Your task to perform on an android device: Clear the shopping cart on walmart. Add "logitech g910" to the cart on walmart Image 0: 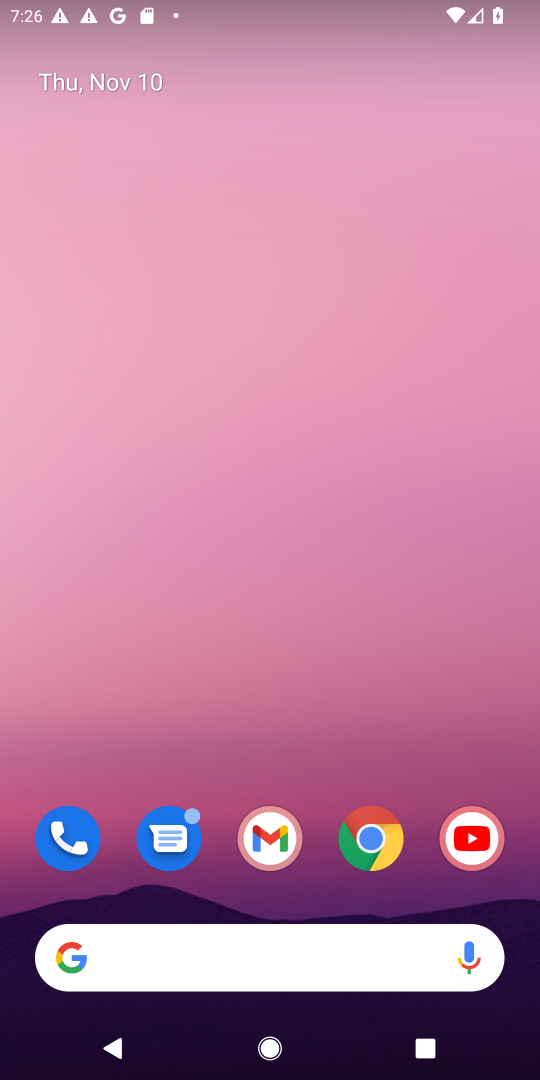
Step 0: drag from (310, 912) to (401, 121)
Your task to perform on an android device: Clear the shopping cart on walmart. Add "logitech g910" to the cart on walmart Image 1: 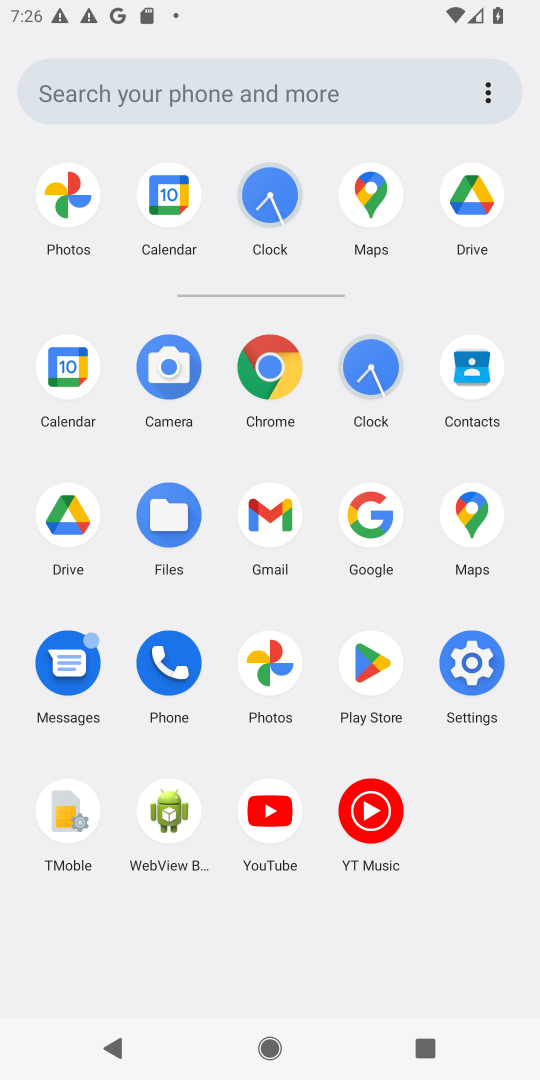
Step 1: click (268, 372)
Your task to perform on an android device: Clear the shopping cart on walmart. Add "logitech g910" to the cart on walmart Image 2: 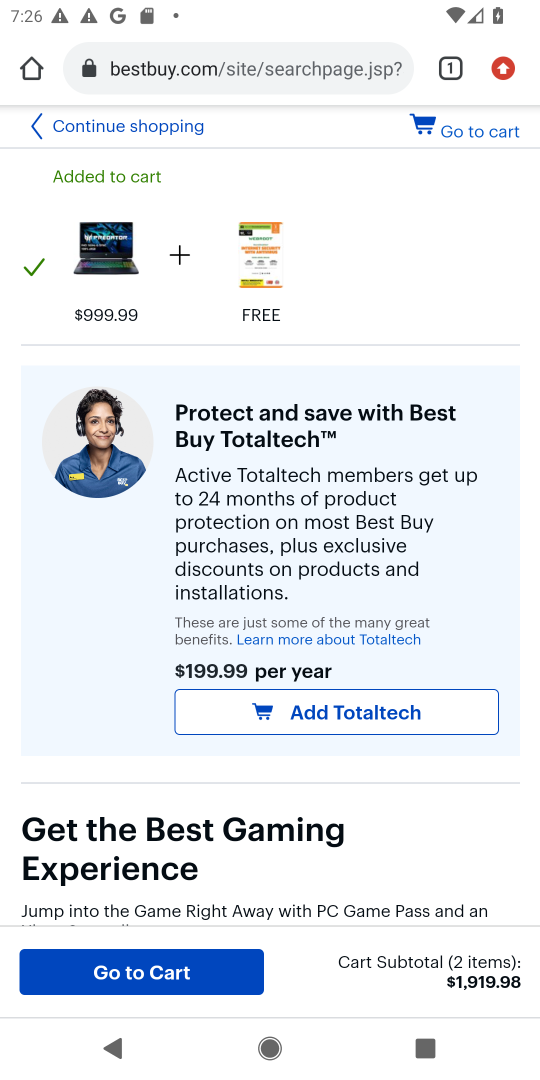
Step 2: click (289, 67)
Your task to perform on an android device: Clear the shopping cart on walmart. Add "logitech g910" to the cart on walmart Image 3: 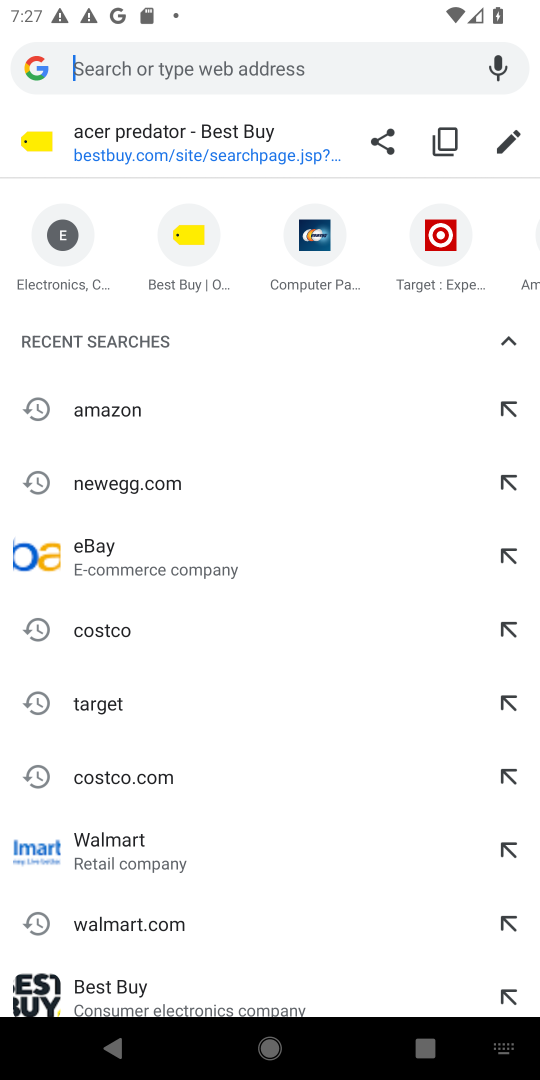
Step 3: type "walmart.com"
Your task to perform on an android device: Clear the shopping cart on walmart. Add "logitech g910" to the cart on walmart Image 4: 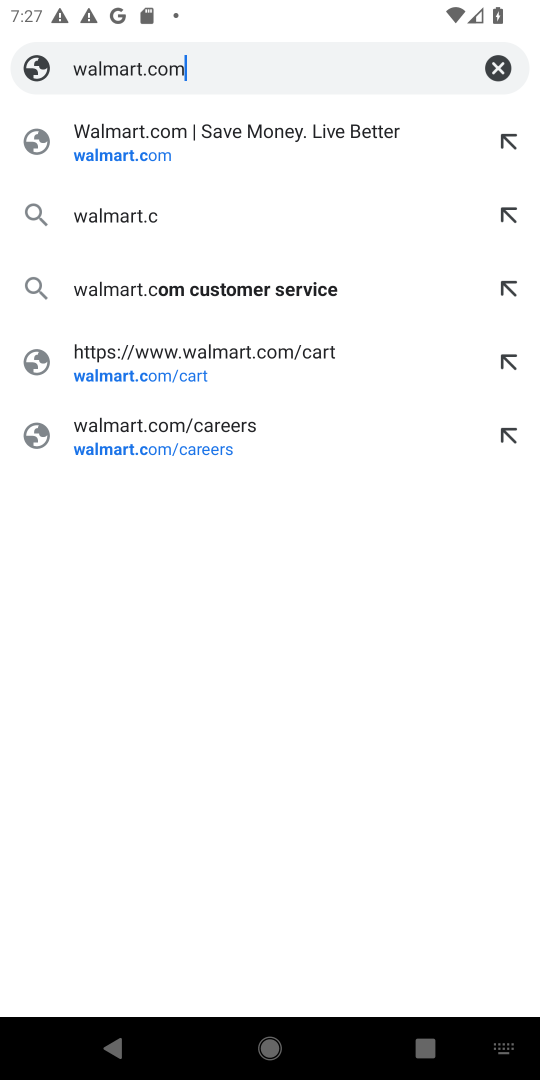
Step 4: press enter
Your task to perform on an android device: Clear the shopping cart on walmart. Add "logitech g910" to the cart on walmart Image 5: 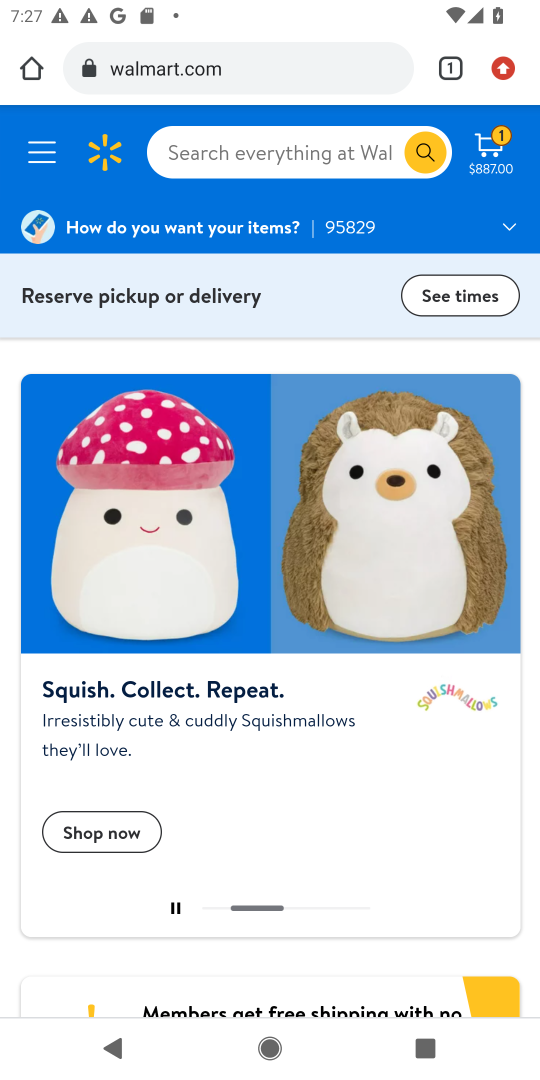
Step 5: click (482, 142)
Your task to perform on an android device: Clear the shopping cart on walmart. Add "logitech g910" to the cart on walmart Image 6: 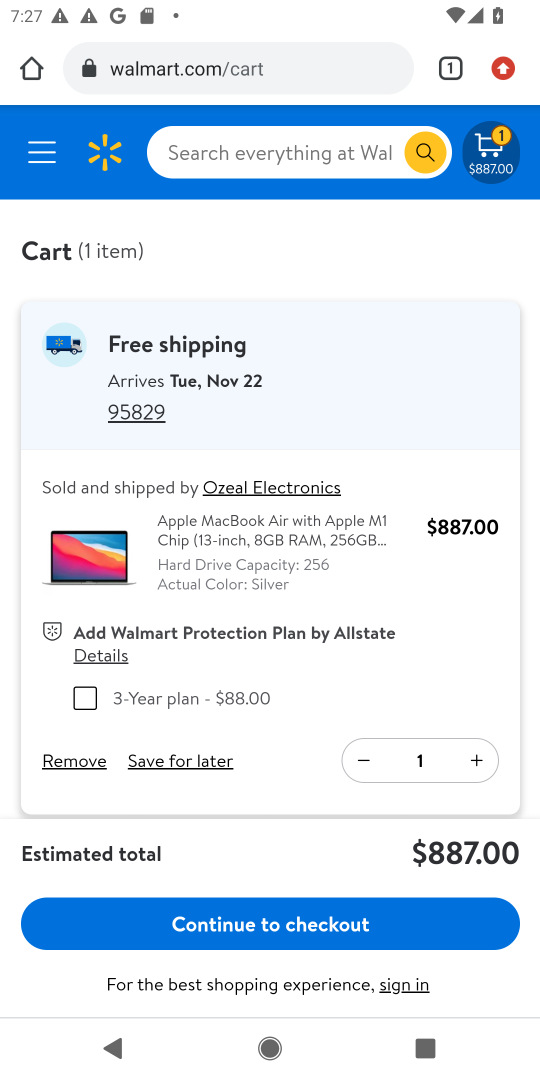
Step 6: click (78, 754)
Your task to perform on an android device: Clear the shopping cart on walmart. Add "logitech g910" to the cart on walmart Image 7: 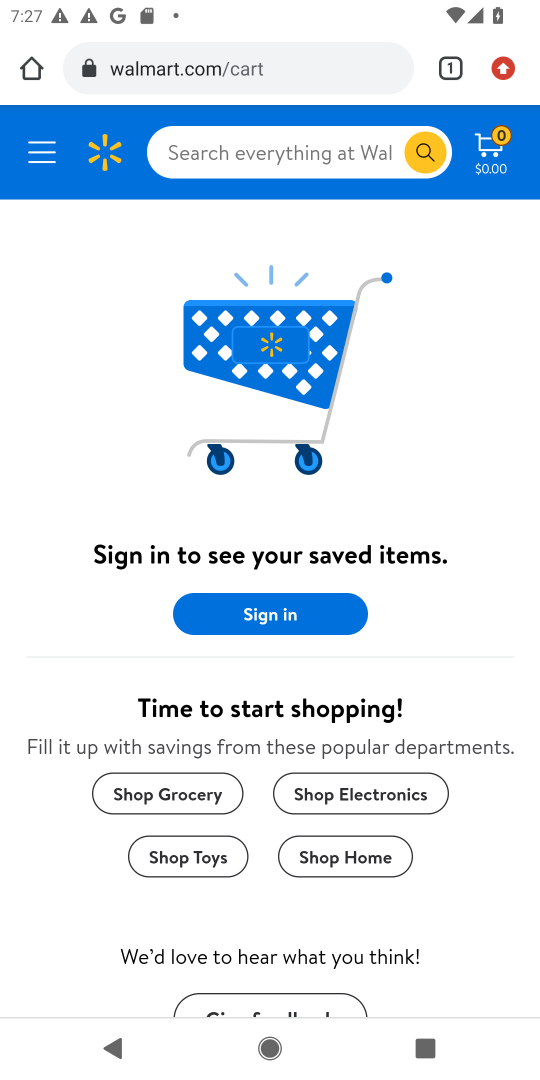
Step 7: click (303, 143)
Your task to perform on an android device: Clear the shopping cart on walmart. Add "logitech g910" to the cart on walmart Image 8: 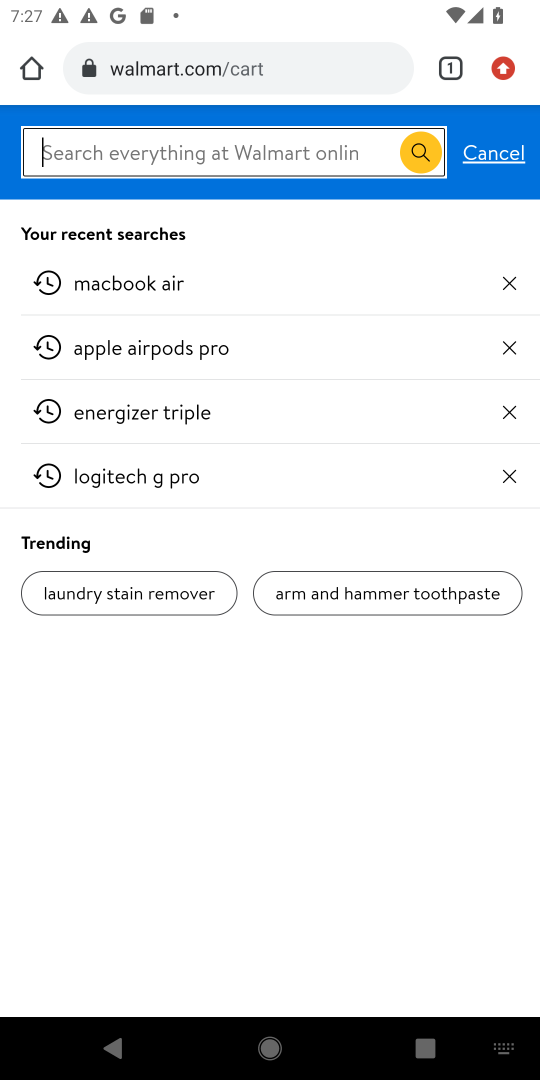
Step 8: type "logitech g910"
Your task to perform on an android device: Clear the shopping cart on walmart. Add "logitech g910" to the cart on walmart Image 9: 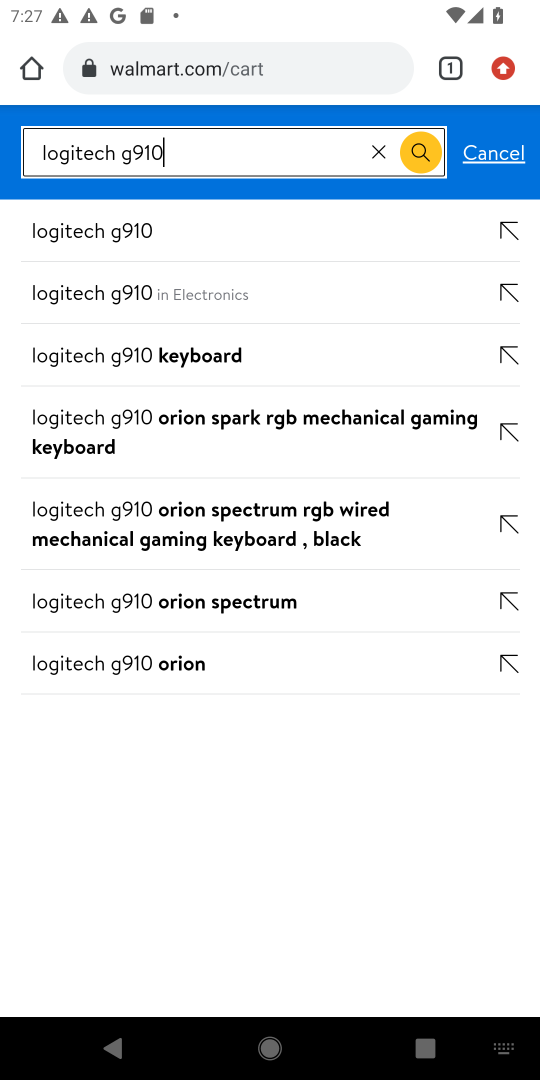
Step 9: press enter
Your task to perform on an android device: Clear the shopping cart on walmart. Add "logitech g910" to the cart on walmart Image 10: 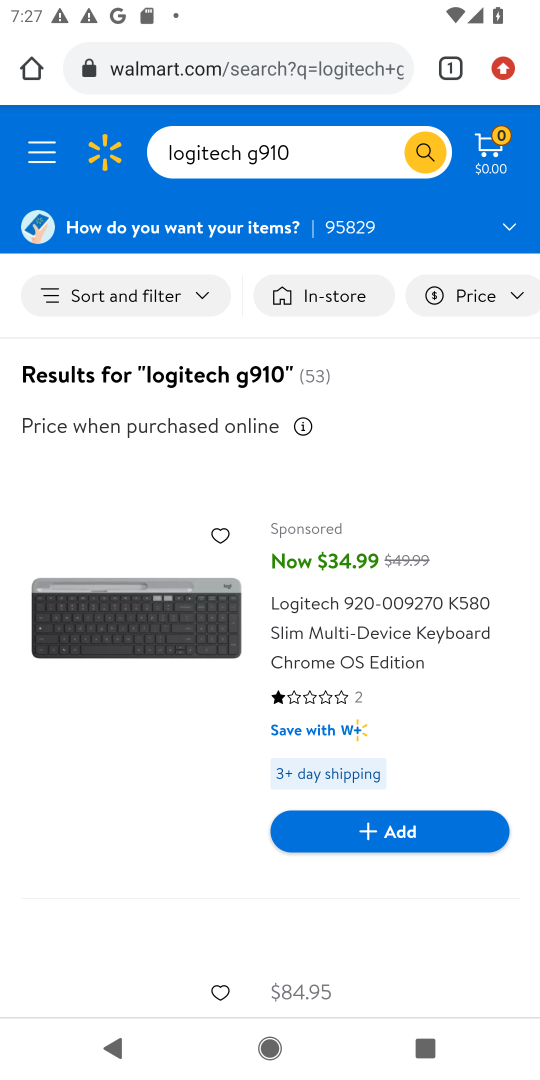
Step 10: drag from (329, 766) to (309, 153)
Your task to perform on an android device: Clear the shopping cart on walmart. Add "logitech g910" to the cart on walmart Image 11: 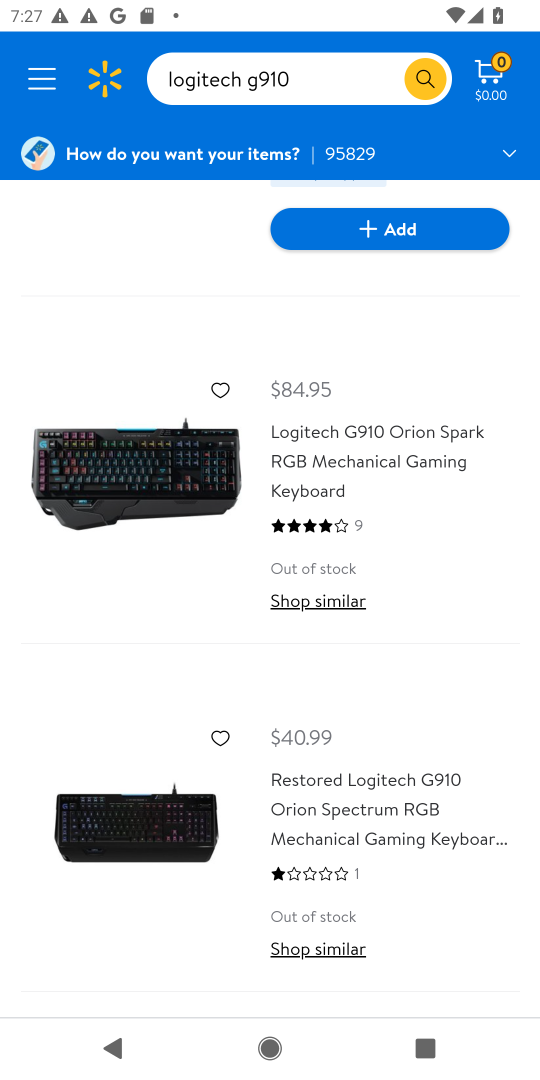
Step 11: click (162, 479)
Your task to perform on an android device: Clear the shopping cart on walmart. Add "logitech g910" to the cart on walmart Image 12: 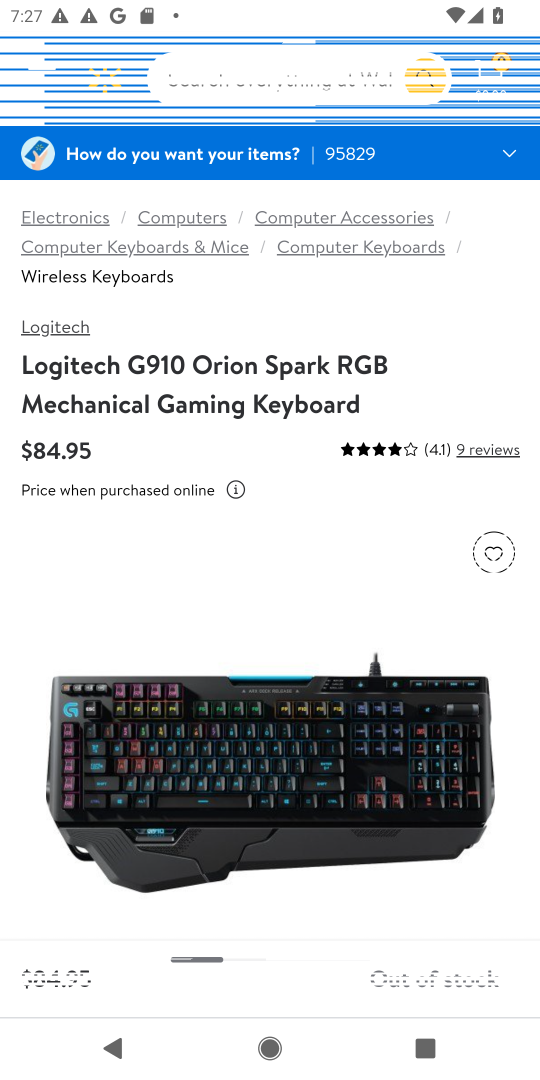
Step 12: task complete